Your task to perform on an android device: turn on translation in the chrome app Image 0: 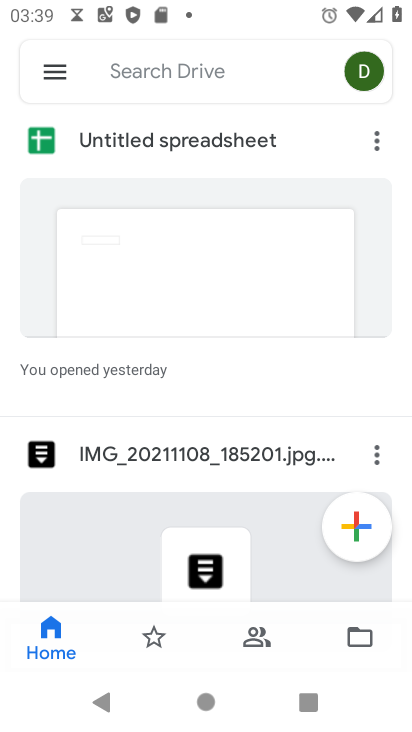
Step 0: press home button
Your task to perform on an android device: turn on translation in the chrome app Image 1: 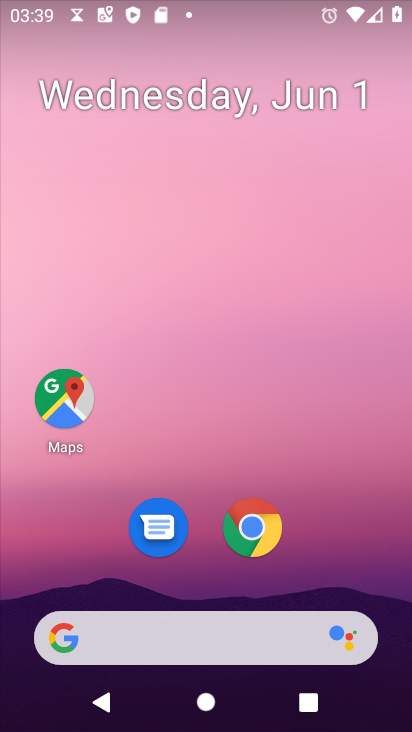
Step 1: click (254, 526)
Your task to perform on an android device: turn on translation in the chrome app Image 2: 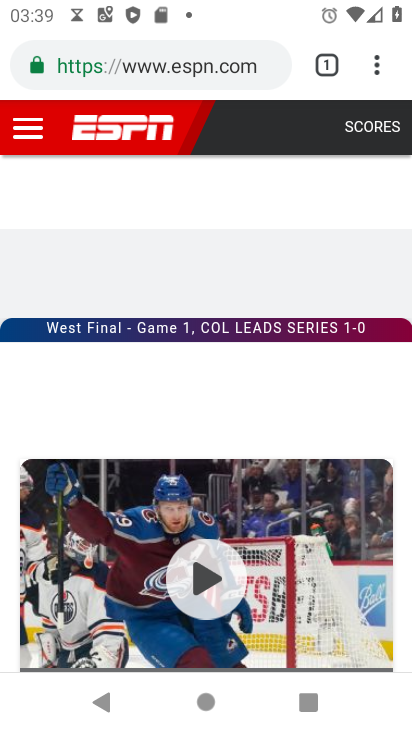
Step 2: click (380, 67)
Your task to perform on an android device: turn on translation in the chrome app Image 3: 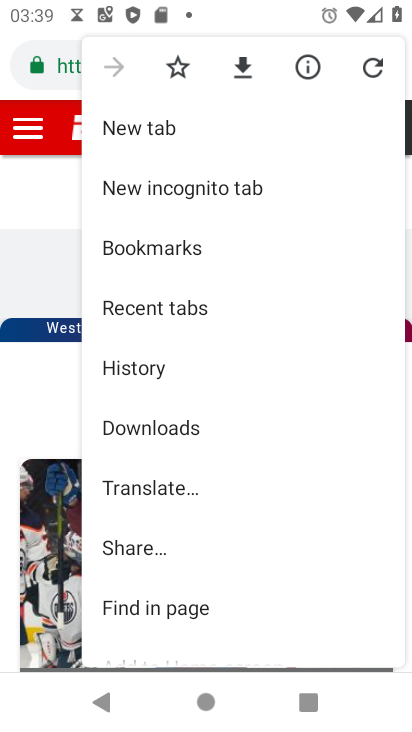
Step 3: drag from (160, 494) to (183, 440)
Your task to perform on an android device: turn on translation in the chrome app Image 4: 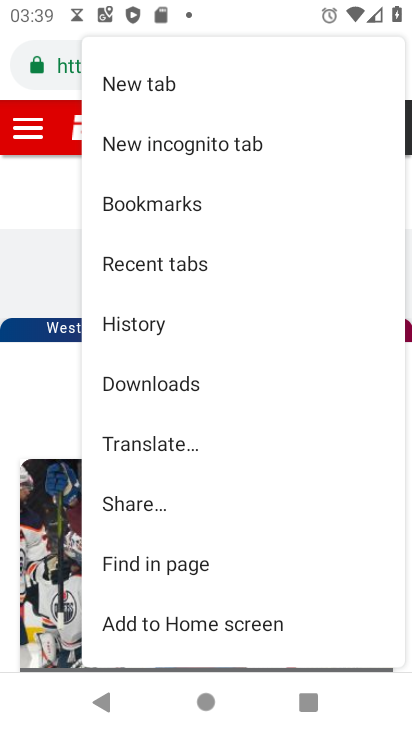
Step 4: drag from (171, 586) to (225, 511)
Your task to perform on an android device: turn on translation in the chrome app Image 5: 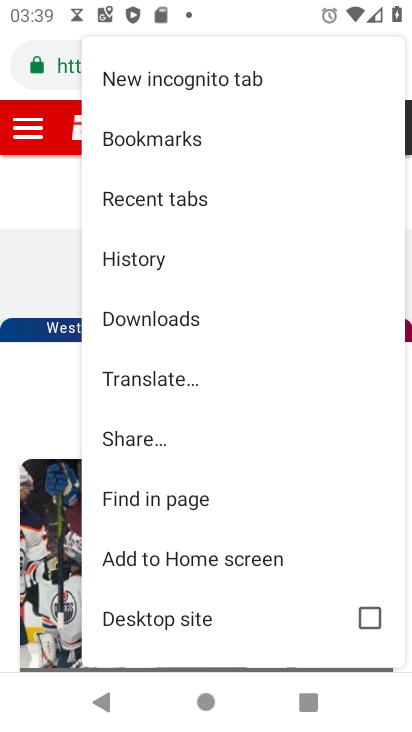
Step 5: drag from (168, 590) to (253, 481)
Your task to perform on an android device: turn on translation in the chrome app Image 6: 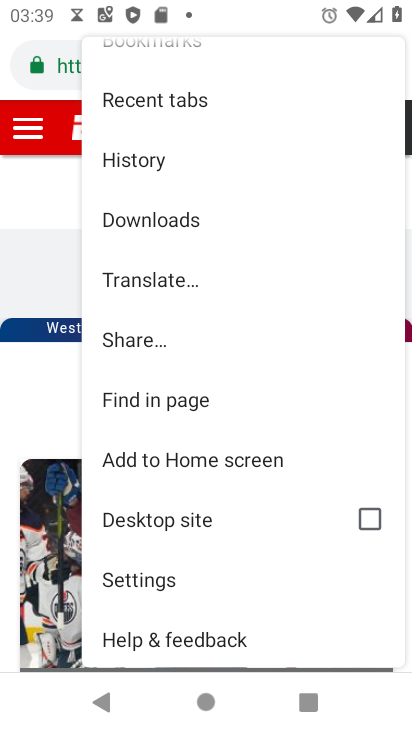
Step 6: click (162, 575)
Your task to perform on an android device: turn on translation in the chrome app Image 7: 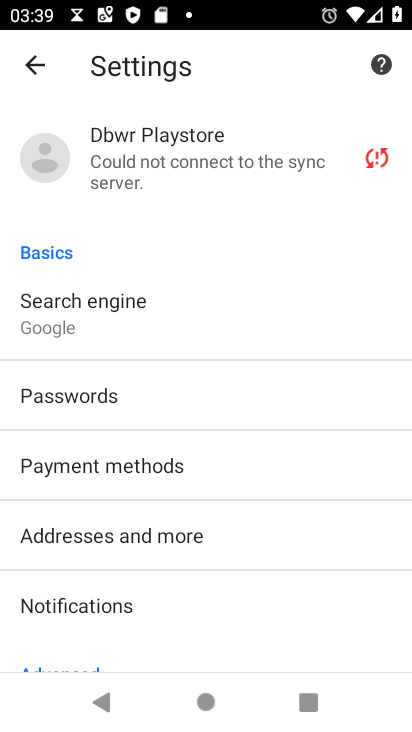
Step 7: drag from (156, 583) to (205, 510)
Your task to perform on an android device: turn on translation in the chrome app Image 8: 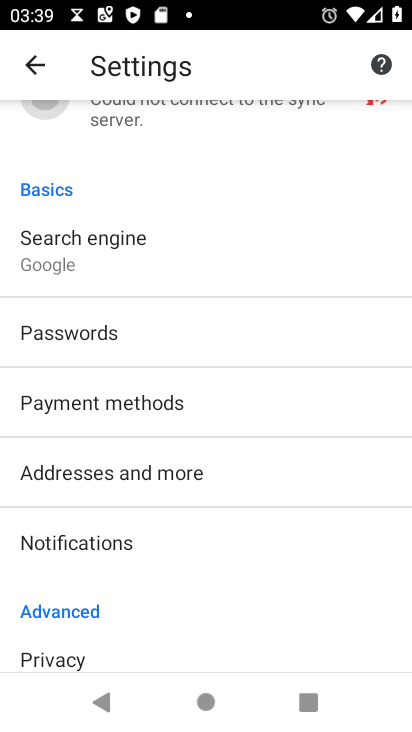
Step 8: drag from (129, 598) to (186, 499)
Your task to perform on an android device: turn on translation in the chrome app Image 9: 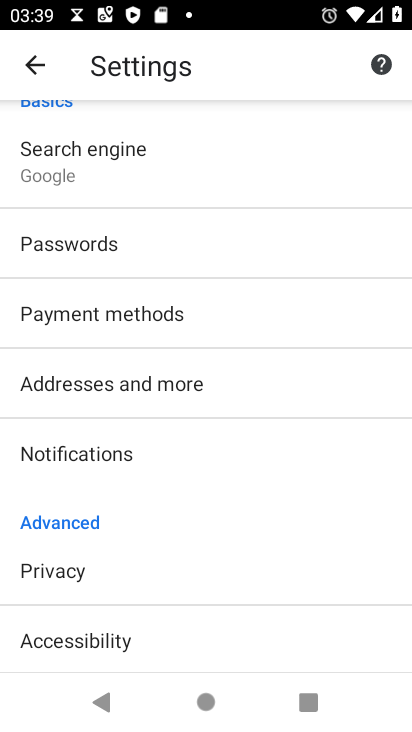
Step 9: drag from (139, 565) to (211, 478)
Your task to perform on an android device: turn on translation in the chrome app Image 10: 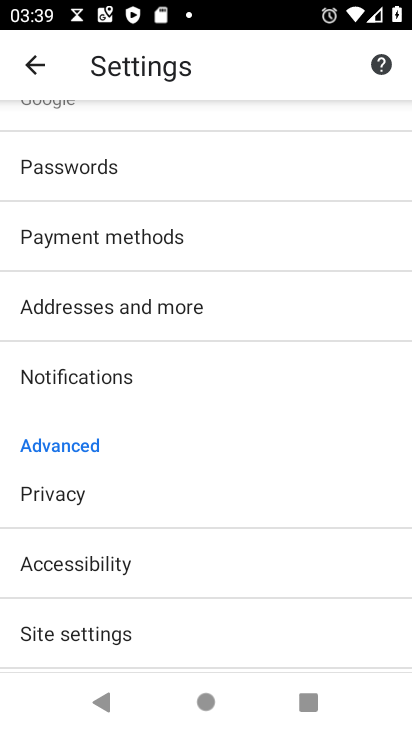
Step 10: drag from (159, 569) to (226, 483)
Your task to perform on an android device: turn on translation in the chrome app Image 11: 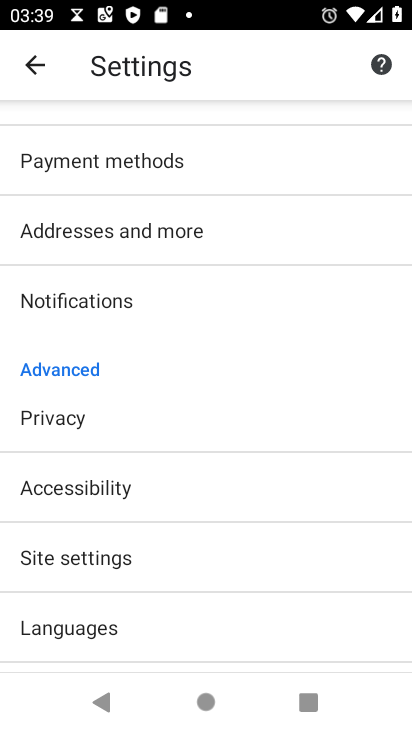
Step 11: drag from (159, 628) to (190, 562)
Your task to perform on an android device: turn on translation in the chrome app Image 12: 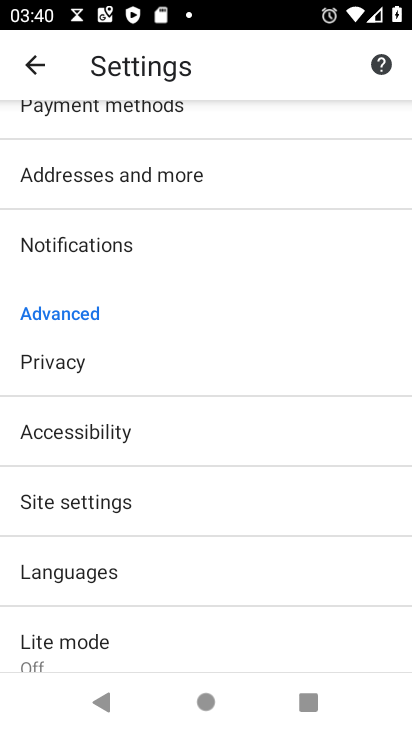
Step 12: click (91, 570)
Your task to perform on an android device: turn on translation in the chrome app Image 13: 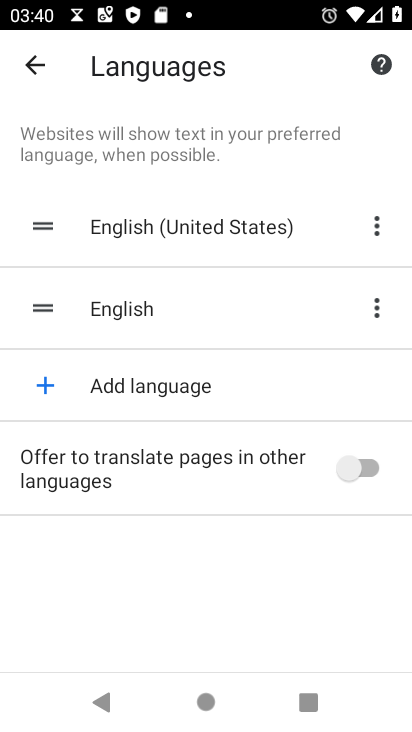
Step 13: click (353, 471)
Your task to perform on an android device: turn on translation in the chrome app Image 14: 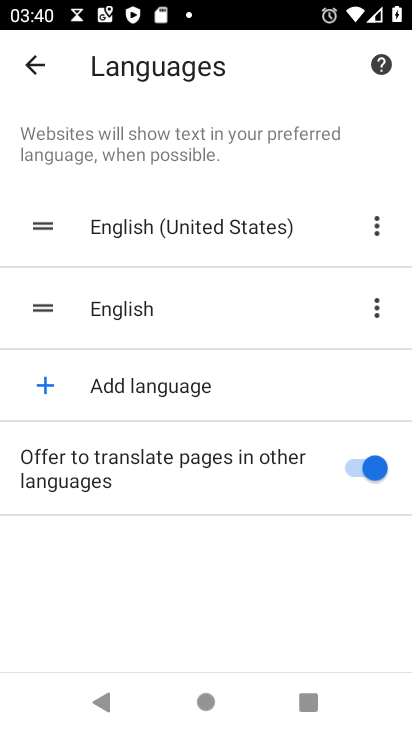
Step 14: task complete